Your task to perform on an android device: clear all cookies in the chrome app Image 0: 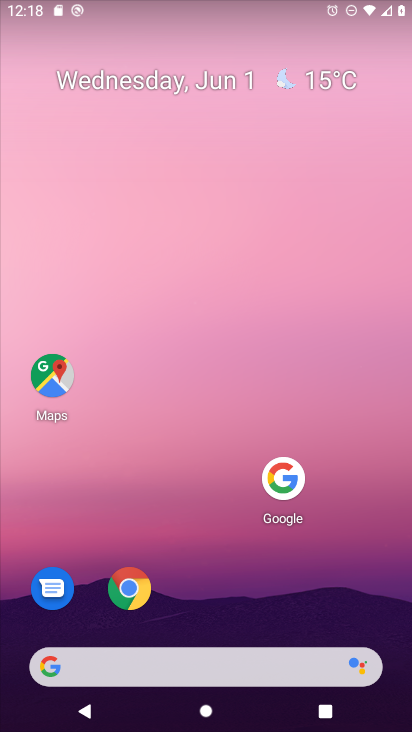
Step 0: click (133, 593)
Your task to perform on an android device: clear all cookies in the chrome app Image 1: 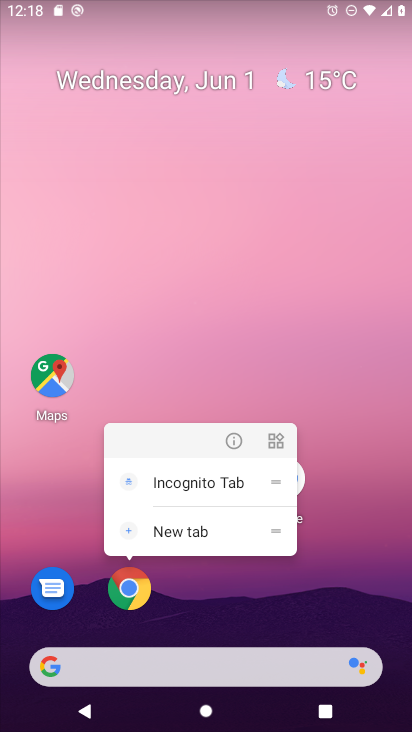
Step 1: click (139, 579)
Your task to perform on an android device: clear all cookies in the chrome app Image 2: 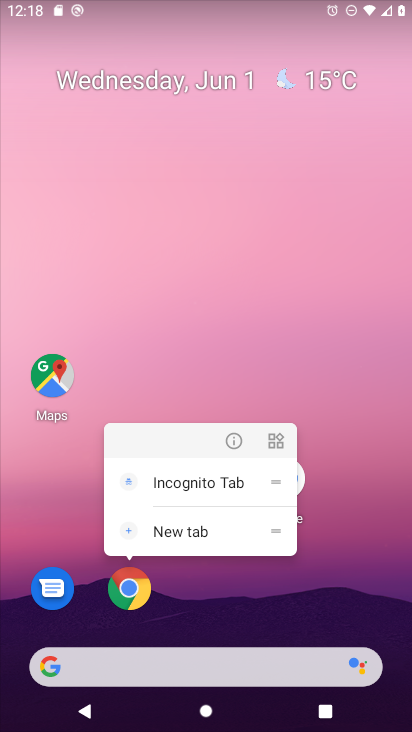
Step 2: click (134, 582)
Your task to perform on an android device: clear all cookies in the chrome app Image 3: 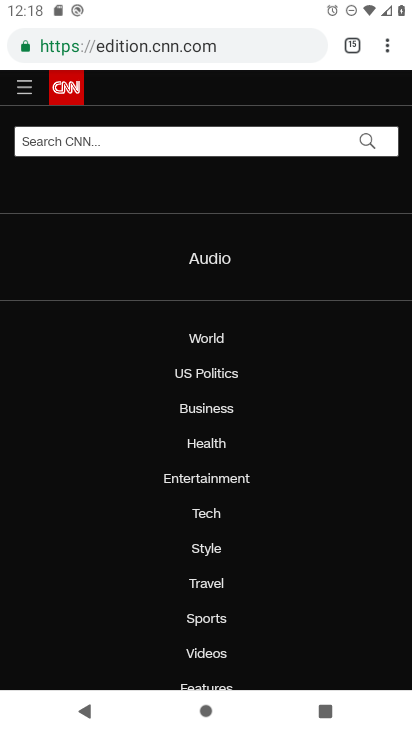
Step 3: drag from (389, 47) to (249, 551)
Your task to perform on an android device: clear all cookies in the chrome app Image 4: 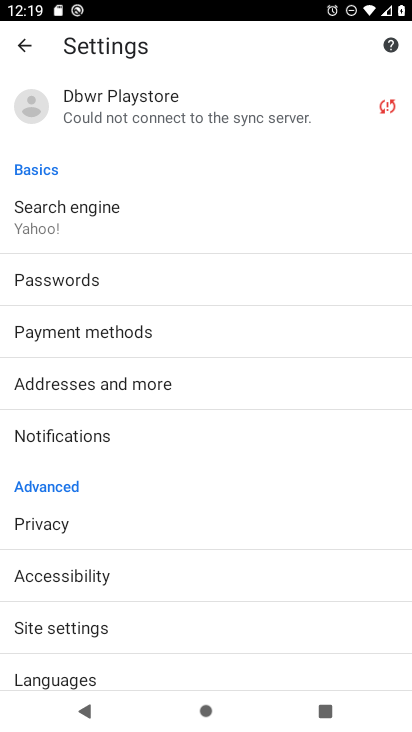
Step 4: click (64, 532)
Your task to perform on an android device: clear all cookies in the chrome app Image 5: 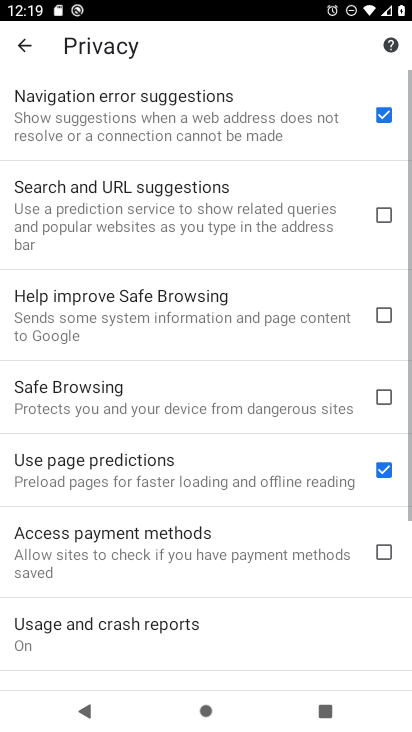
Step 5: drag from (220, 596) to (307, 59)
Your task to perform on an android device: clear all cookies in the chrome app Image 6: 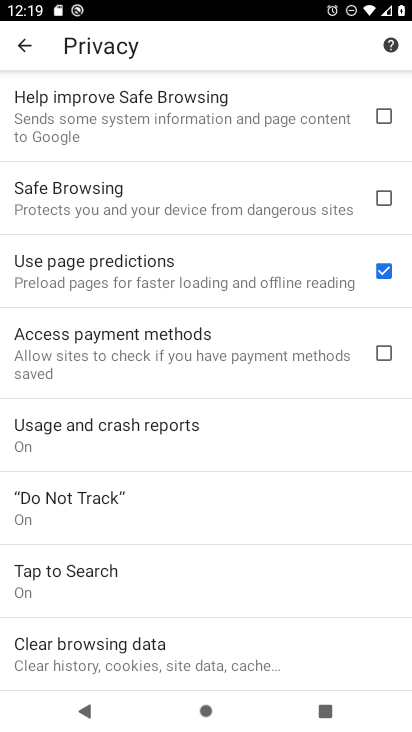
Step 6: click (141, 647)
Your task to perform on an android device: clear all cookies in the chrome app Image 7: 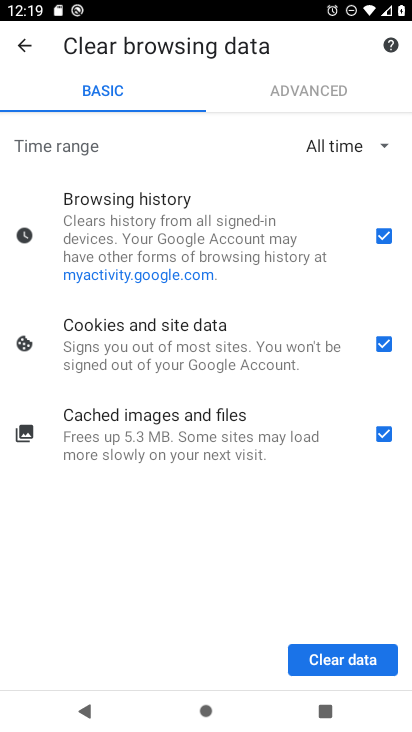
Step 7: click (387, 230)
Your task to perform on an android device: clear all cookies in the chrome app Image 8: 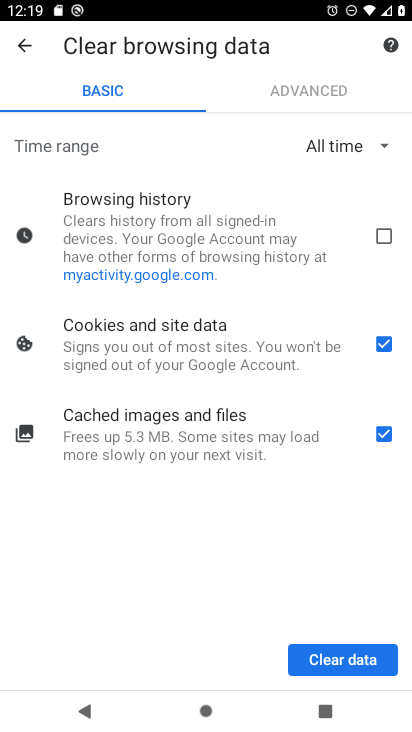
Step 8: click (386, 434)
Your task to perform on an android device: clear all cookies in the chrome app Image 9: 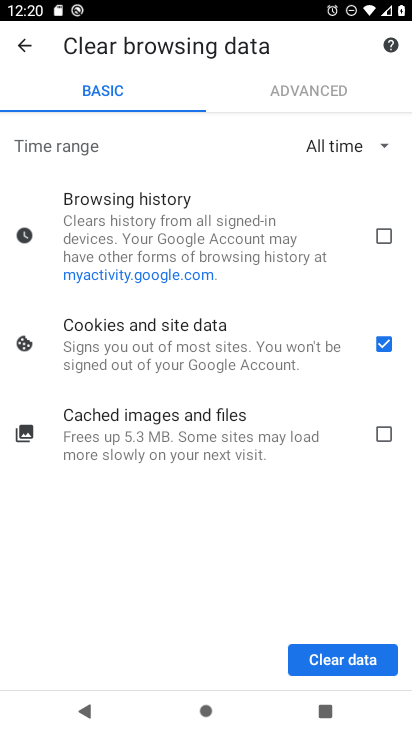
Step 9: click (333, 656)
Your task to perform on an android device: clear all cookies in the chrome app Image 10: 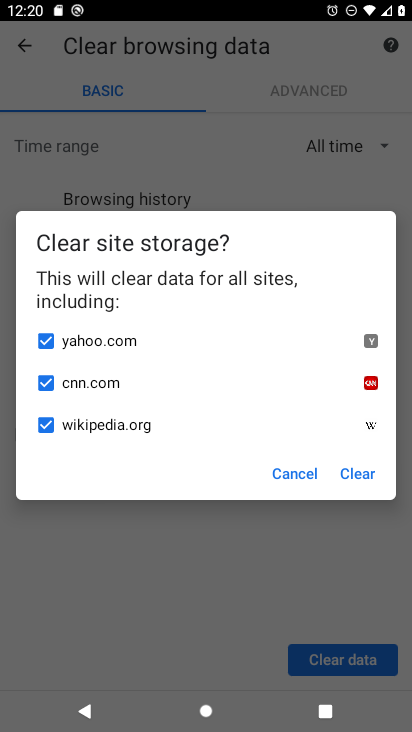
Step 10: click (357, 472)
Your task to perform on an android device: clear all cookies in the chrome app Image 11: 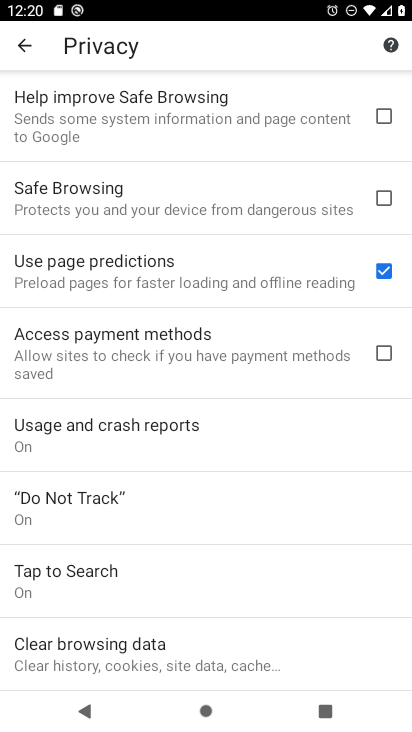
Step 11: task complete